Your task to perform on an android device: check battery use Image 0: 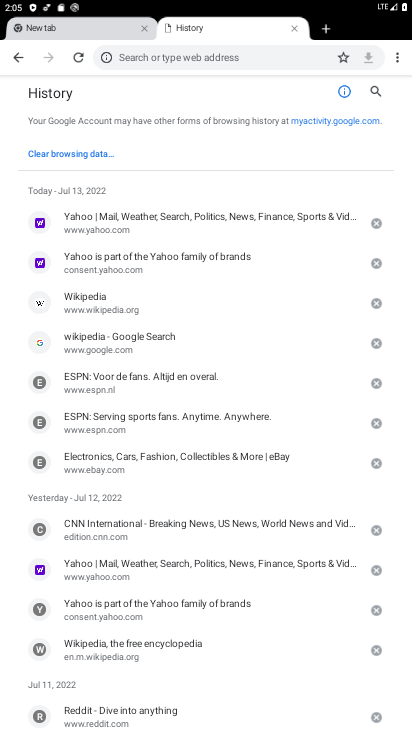
Step 0: press home button
Your task to perform on an android device: check battery use Image 1: 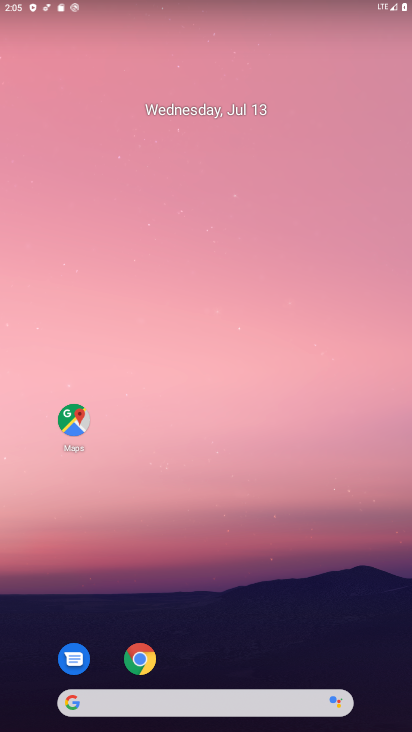
Step 1: drag from (360, 576) to (338, 225)
Your task to perform on an android device: check battery use Image 2: 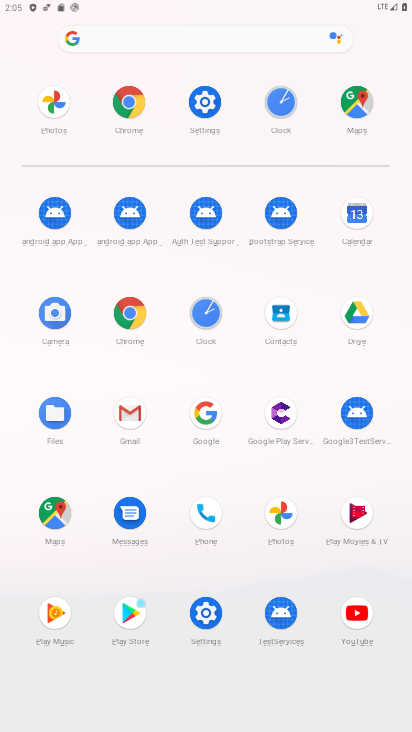
Step 2: click (204, 615)
Your task to perform on an android device: check battery use Image 3: 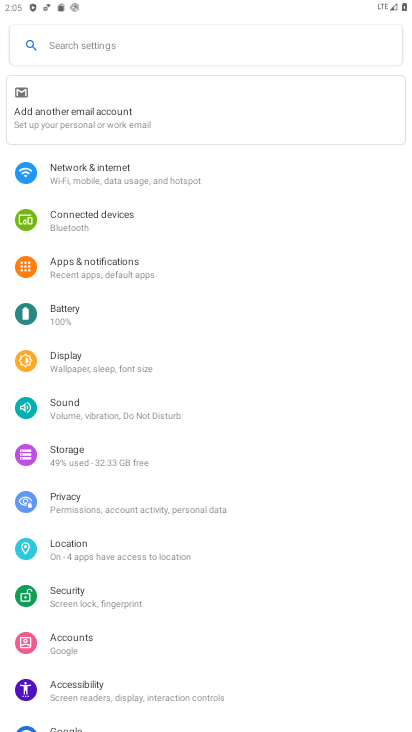
Step 3: click (48, 306)
Your task to perform on an android device: check battery use Image 4: 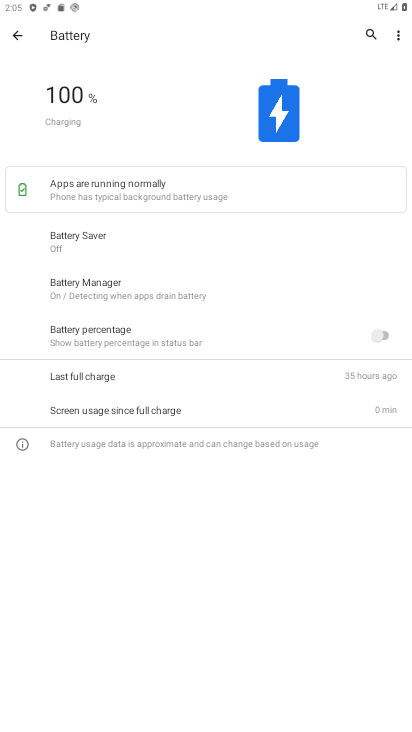
Step 4: click (397, 41)
Your task to perform on an android device: check battery use Image 5: 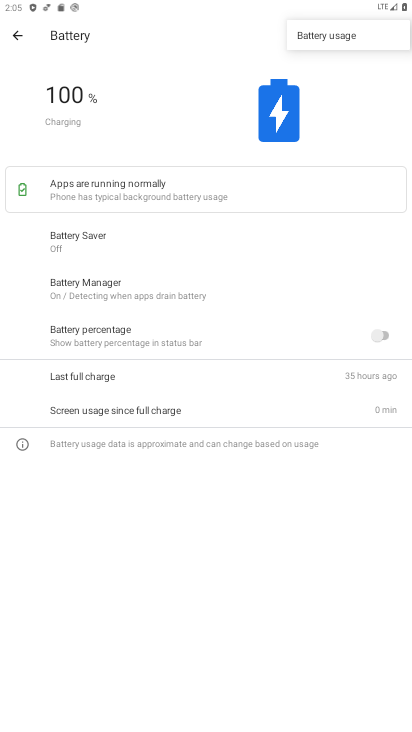
Step 5: click (315, 36)
Your task to perform on an android device: check battery use Image 6: 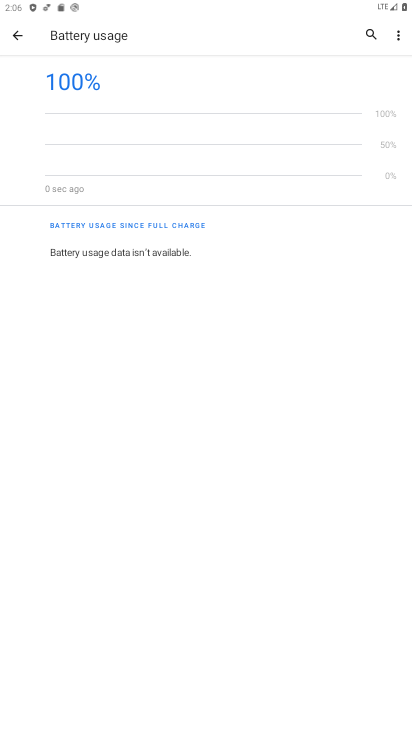
Step 6: task complete